Your task to perform on an android device: Open Amazon Image 0: 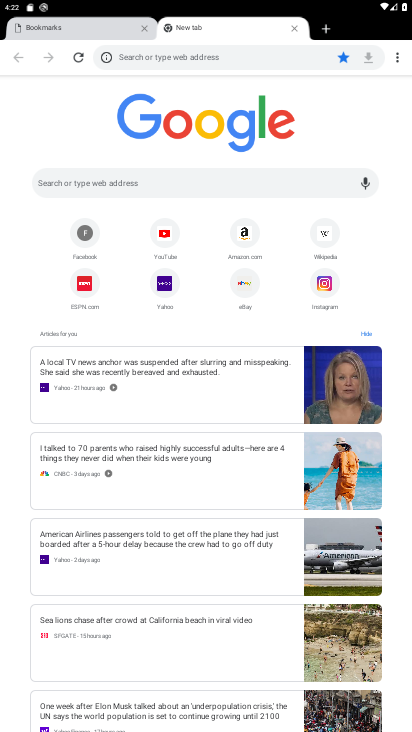
Step 0: click (241, 234)
Your task to perform on an android device: Open Amazon Image 1: 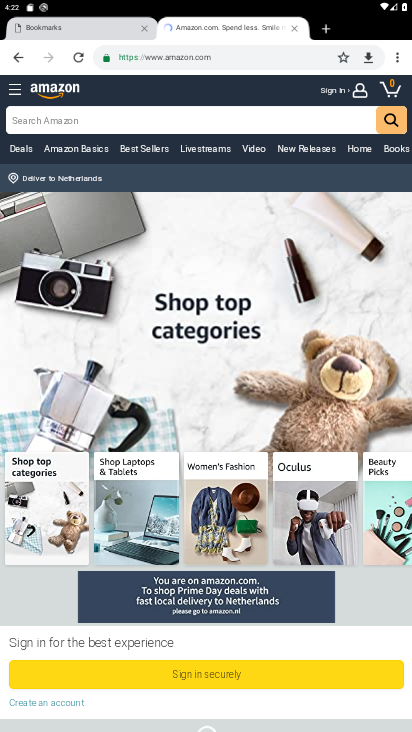
Step 1: task complete